Your task to perform on an android device: delete the emails in spam in the gmail app Image 0: 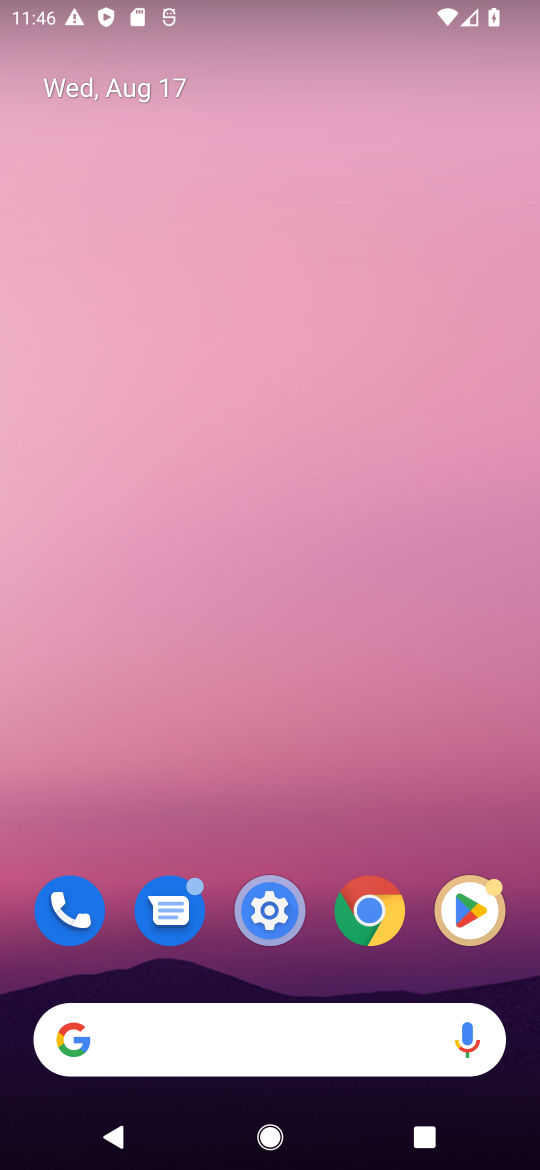
Step 0: drag from (319, 891) to (386, 11)
Your task to perform on an android device: delete the emails in spam in the gmail app Image 1: 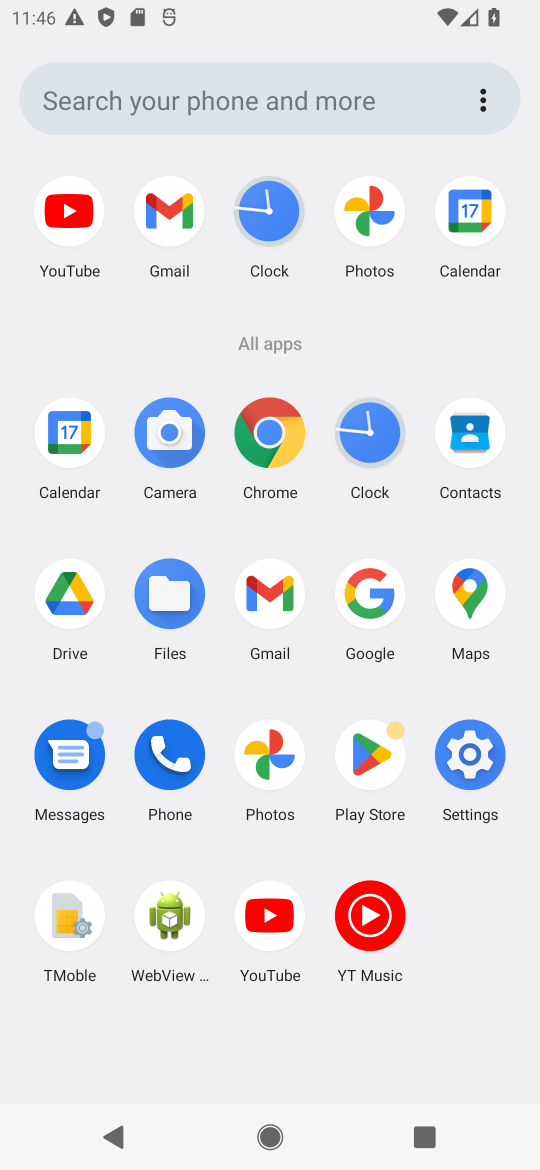
Step 1: click (173, 210)
Your task to perform on an android device: delete the emails in spam in the gmail app Image 2: 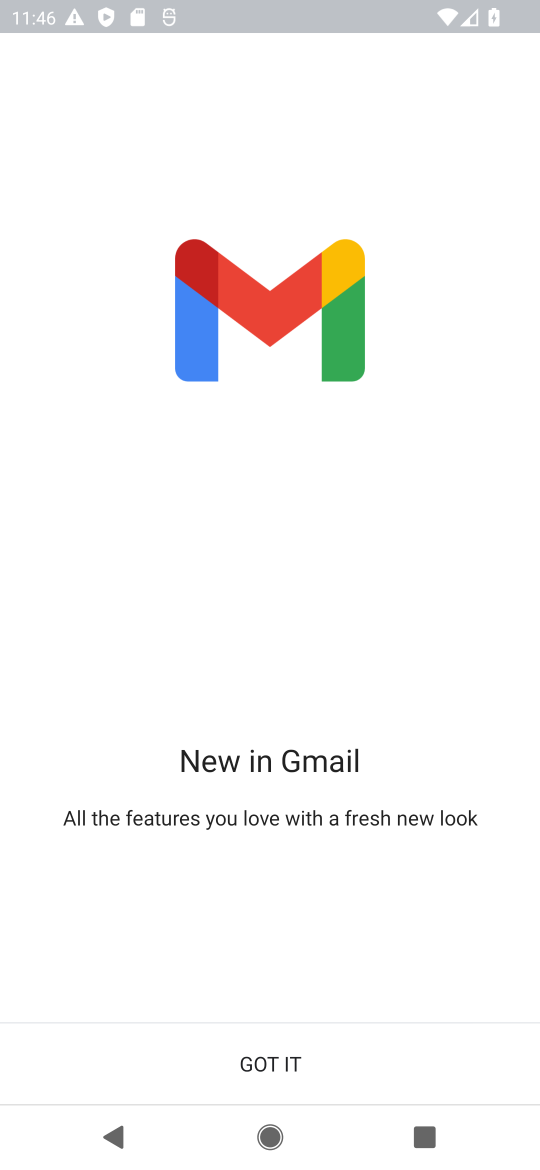
Step 2: click (310, 1043)
Your task to perform on an android device: delete the emails in spam in the gmail app Image 3: 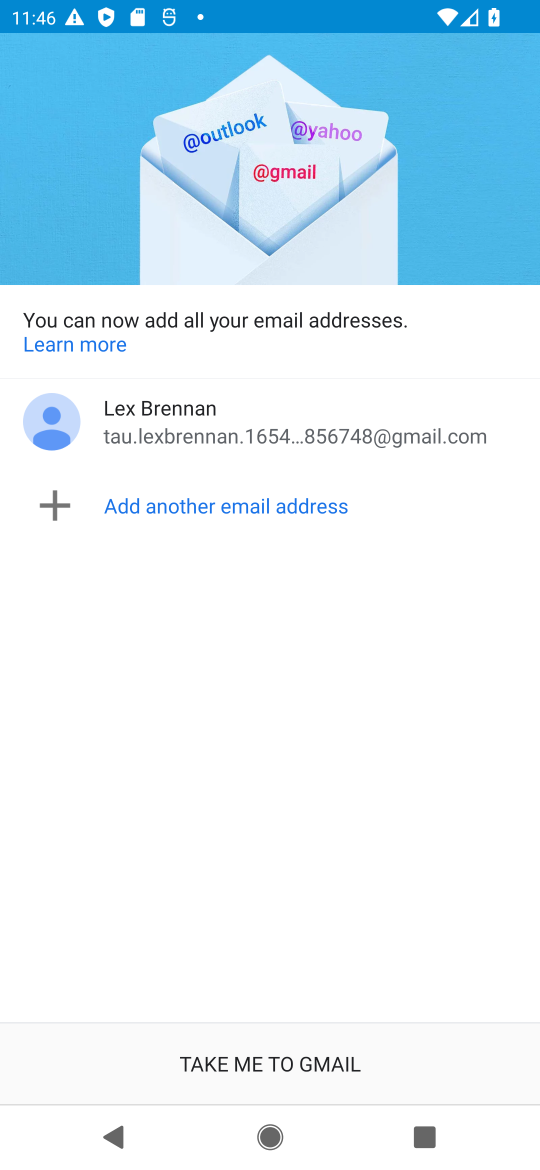
Step 3: click (253, 1051)
Your task to perform on an android device: delete the emails in spam in the gmail app Image 4: 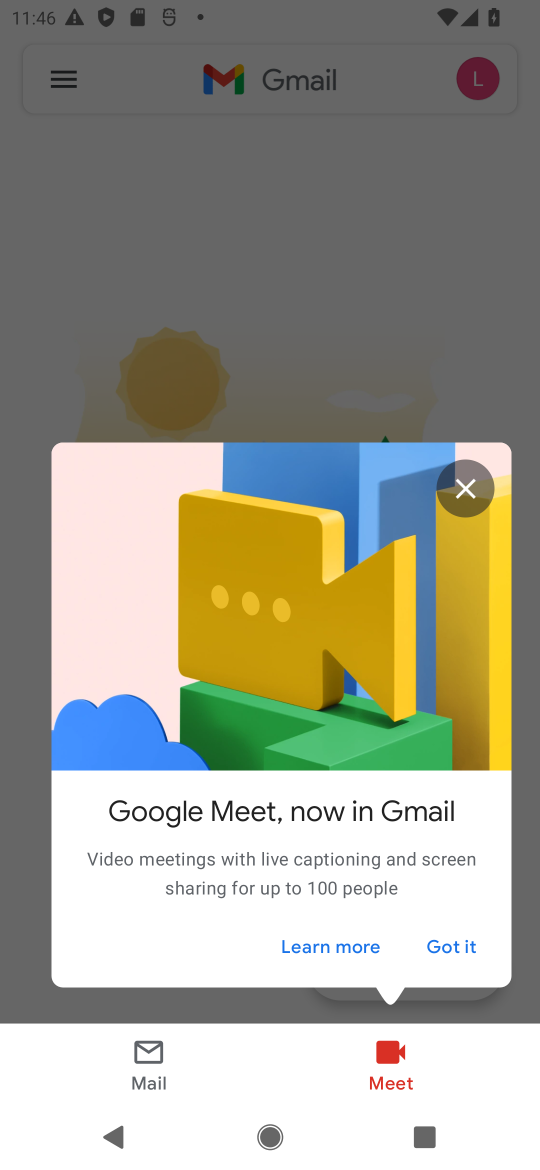
Step 4: click (451, 948)
Your task to perform on an android device: delete the emails in spam in the gmail app Image 5: 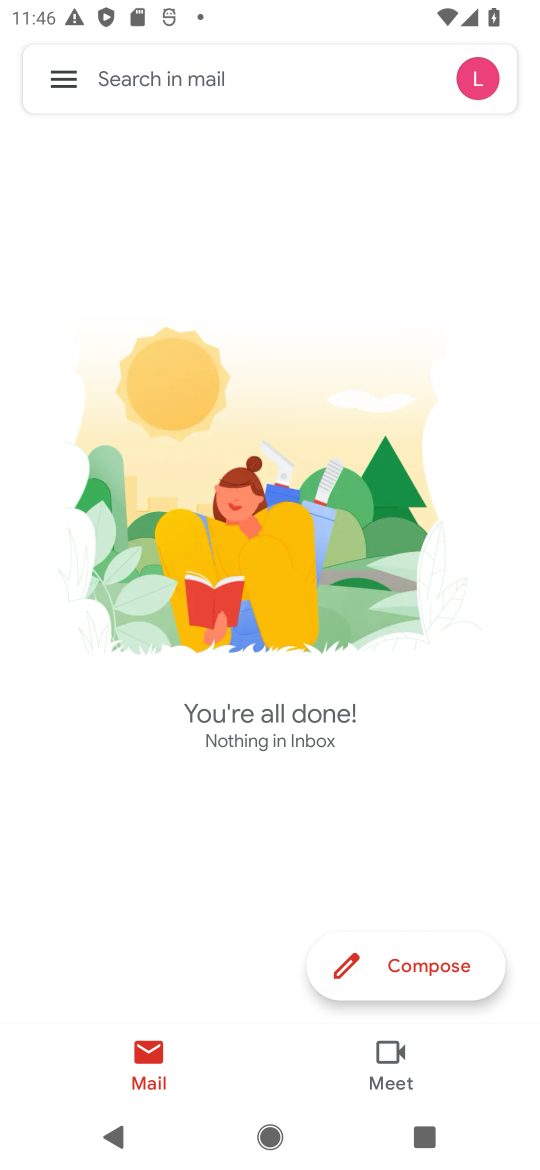
Step 5: click (69, 61)
Your task to perform on an android device: delete the emails in spam in the gmail app Image 6: 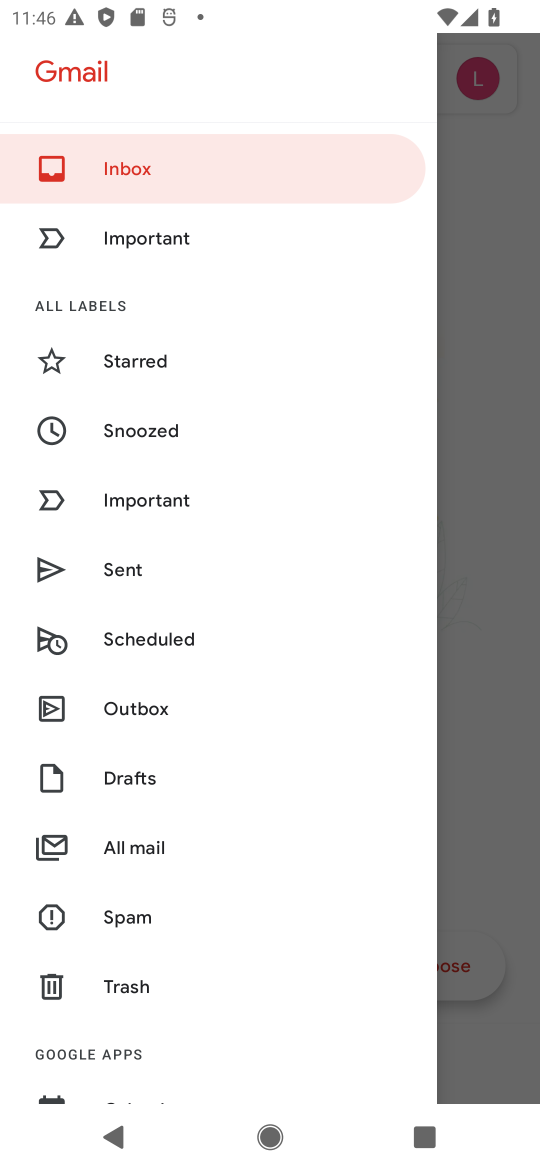
Step 6: click (101, 907)
Your task to perform on an android device: delete the emails in spam in the gmail app Image 7: 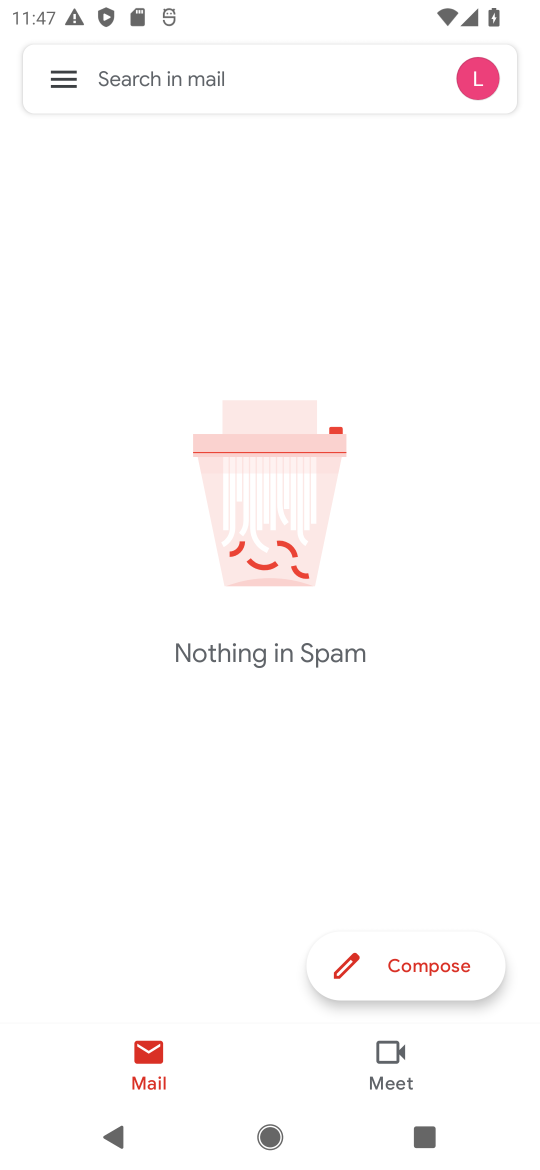
Step 7: task complete